Your task to perform on an android device: toggle priority inbox in the gmail app Image 0: 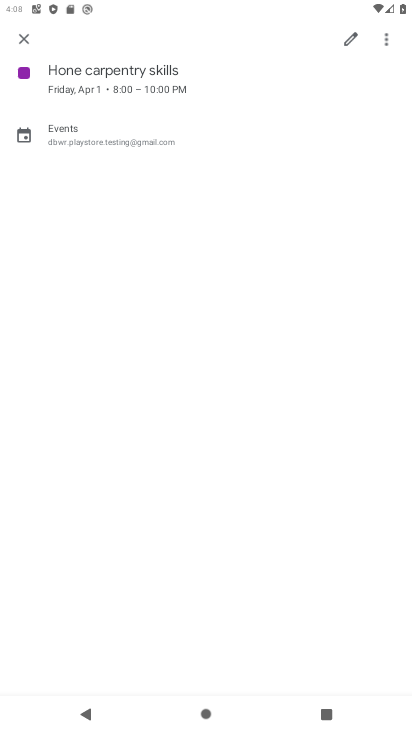
Step 0: press home button
Your task to perform on an android device: toggle priority inbox in the gmail app Image 1: 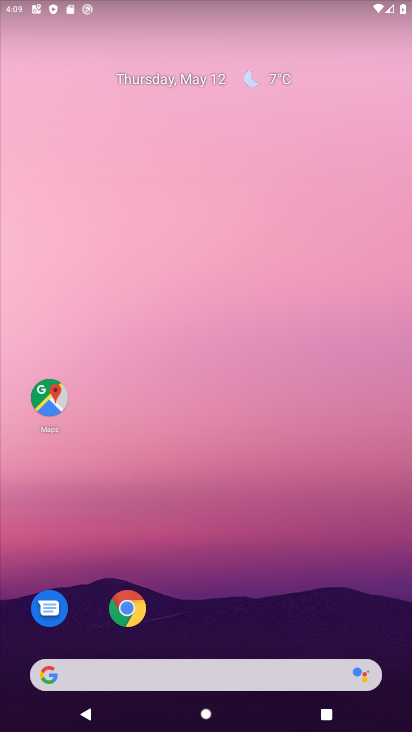
Step 1: drag from (238, 622) to (311, 90)
Your task to perform on an android device: toggle priority inbox in the gmail app Image 2: 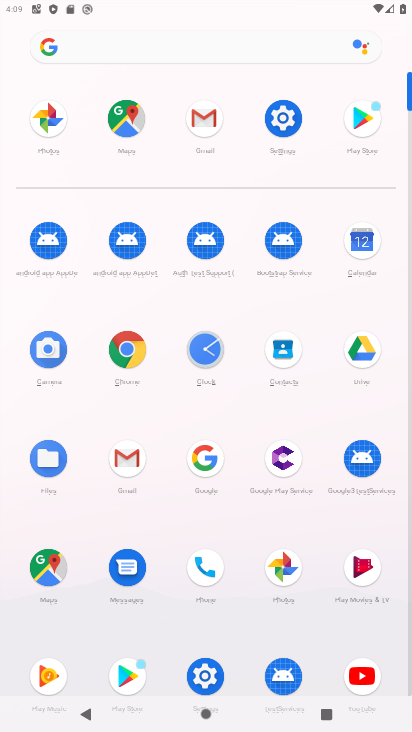
Step 2: click (185, 114)
Your task to perform on an android device: toggle priority inbox in the gmail app Image 3: 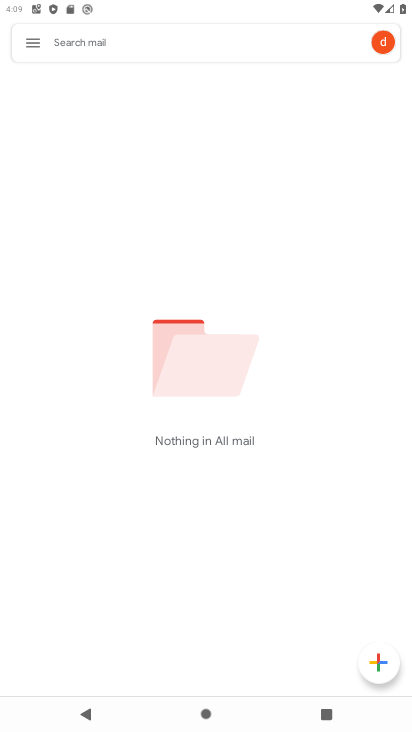
Step 3: click (46, 51)
Your task to perform on an android device: toggle priority inbox in the gmail app Image 4: 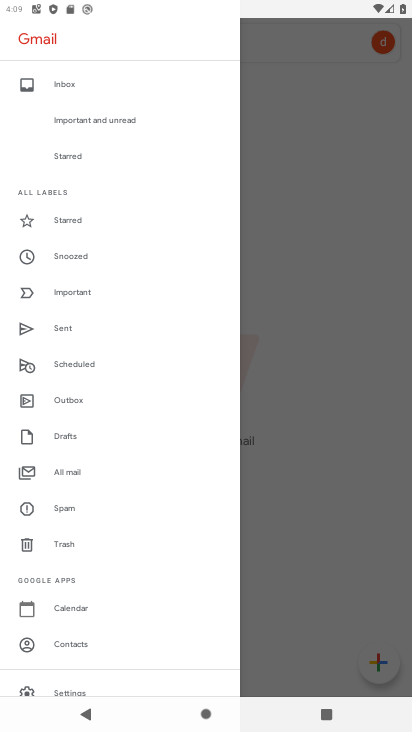
Step 4: click (65, 686)
Your task to perform on an android device: toggle priority inbox in the gmail app Image 5: 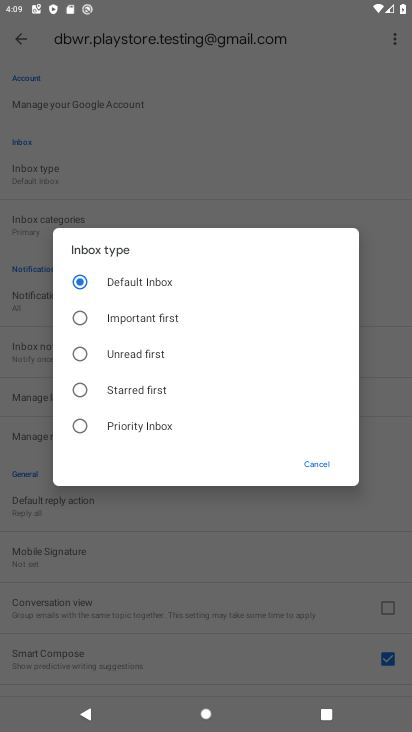
Step 5: click (124, 422)
Your task to perform on an android device: toggle priority inbox in the gmail app Image 6: 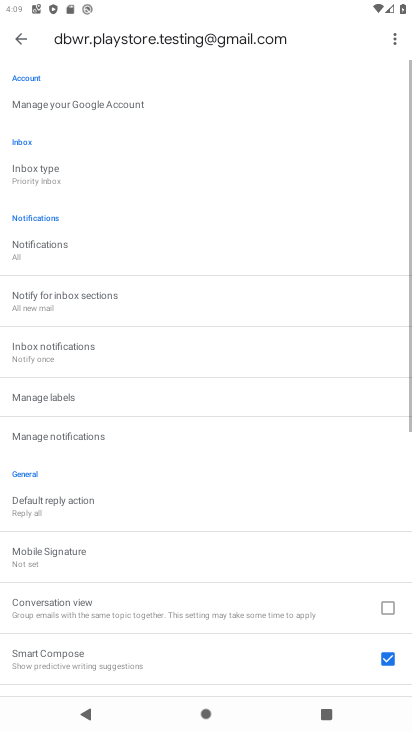
Step 6: task complete